Your task to perform on an android device: toggle notifications settings in the gmail app Image 0: 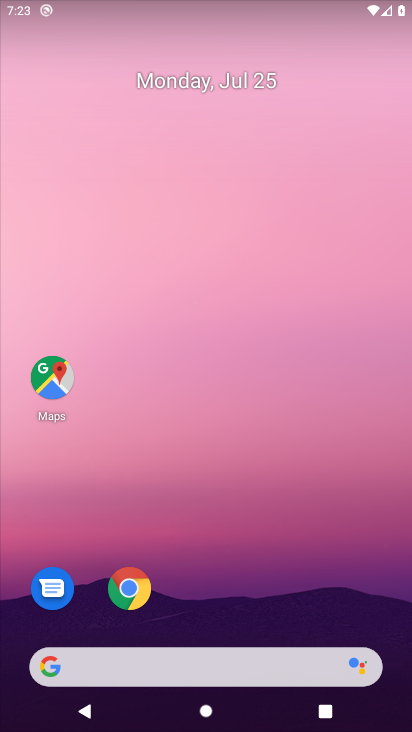
Step 0: drag from (252, 536) to (187, 171)
Your task to perform on an android device: toggle notifications settings in the gmail app Image 1: 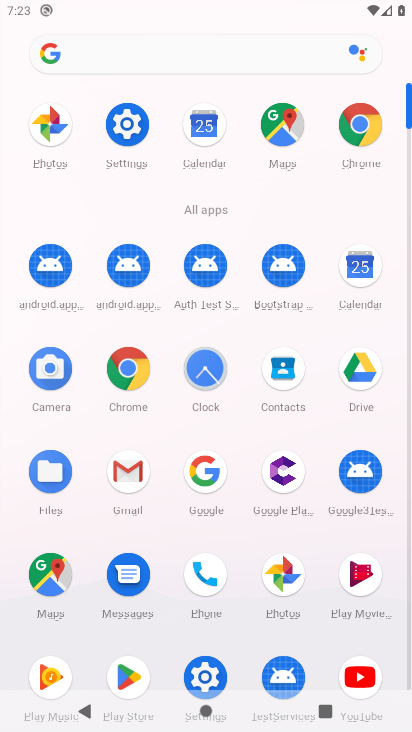
Step 1: click (130, 474)
Your task to perform on an android device: toggle notifications settings in the gmail app Image 2: 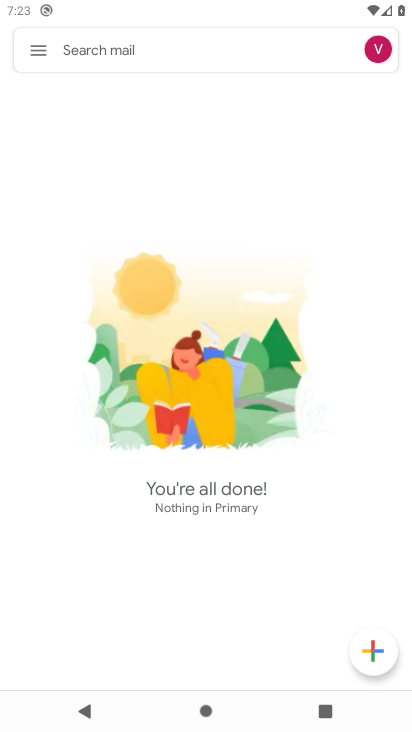
Step 2: task complete